Your task to perform on an android device: check data usage Image 0: 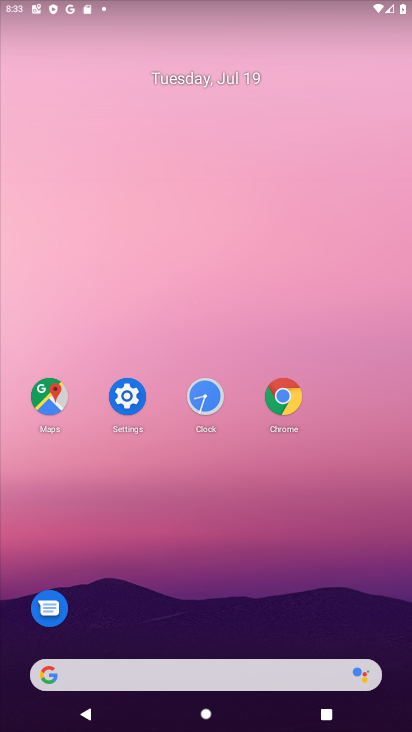
Step 0: click (128, 401)
Your task to perform on an android device: check data usage Image 1: 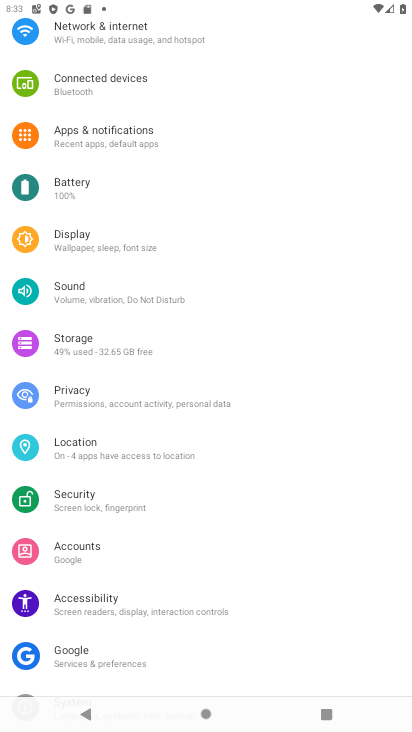
Step 1: click (119, 30)
Your task to perform on an android device: check data usage Image 2: 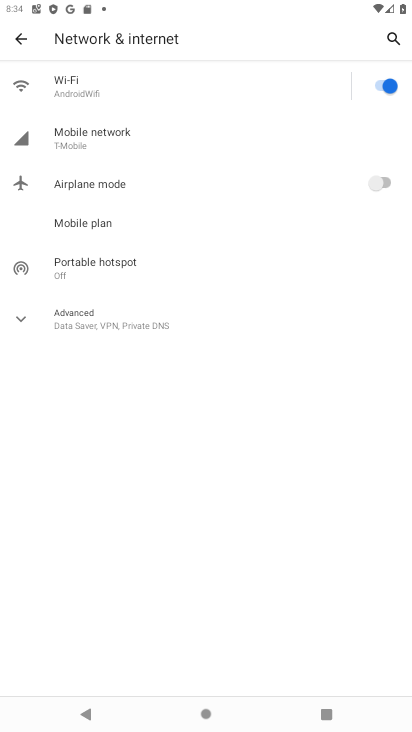
Step 2: click (69, 134)
Your task to perform on an android device: check data usage Image 3: 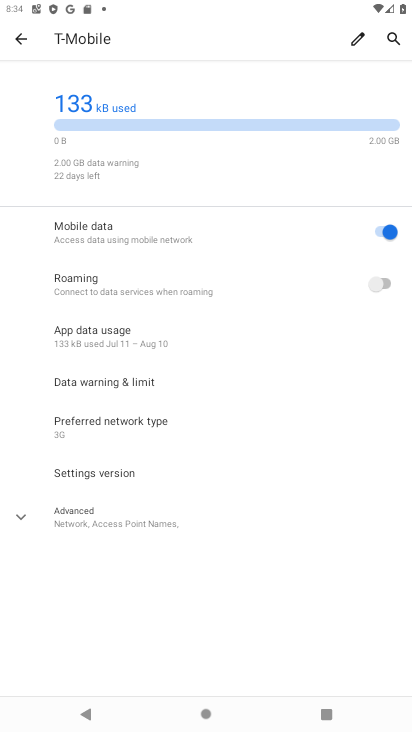
Step 3: task complete